Your task to perform on an android device: turn on sleep mode Image 0: 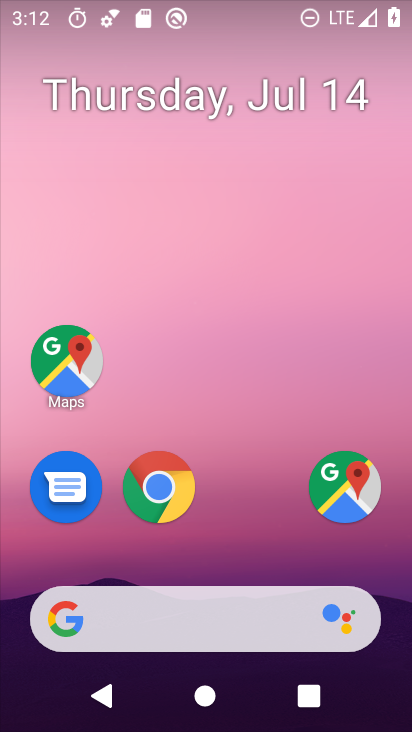
Step 0: drag from (275, 558) to (308, 113)
Your task to perform on an android device: turn on sleep mode Image 1: 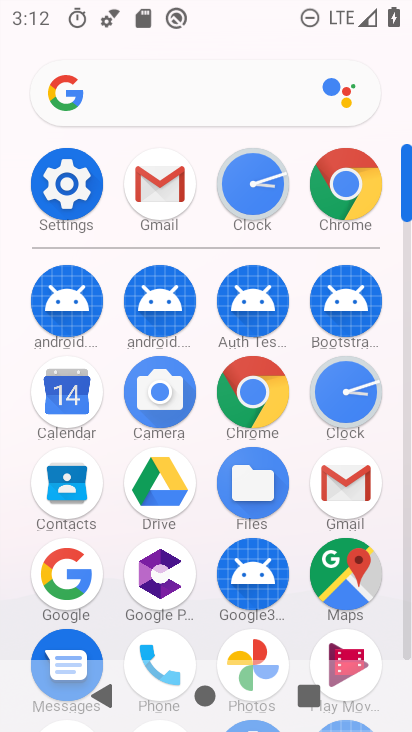
Step 1: click (72, 194)
Your task to perform on an android device: turn on sleep mode Image 2: 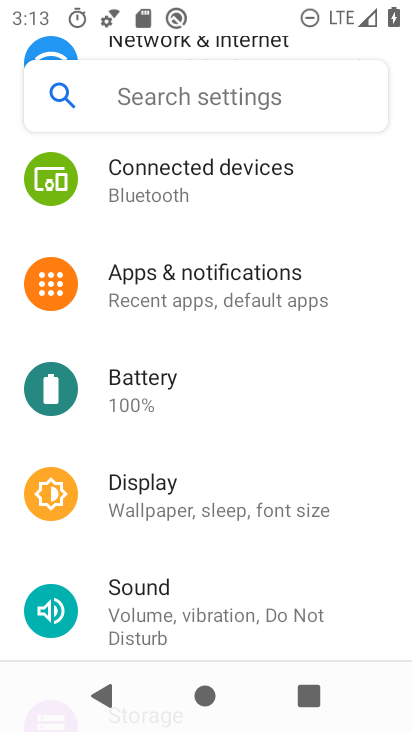
Step 2: drag from (354, 309) to (359, 399)
Your task to perform on an android device: turn on sleep mode Image 3: 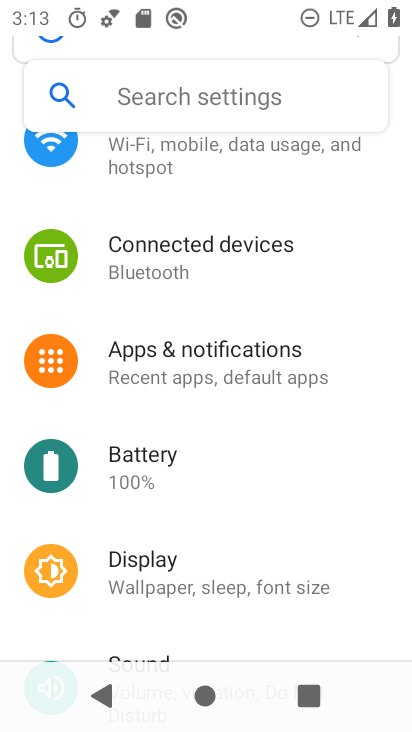
Step 3: drag from (349, 234) to (346, 333)
Your task to perform on an android device: turn on sleep mode Image 4: 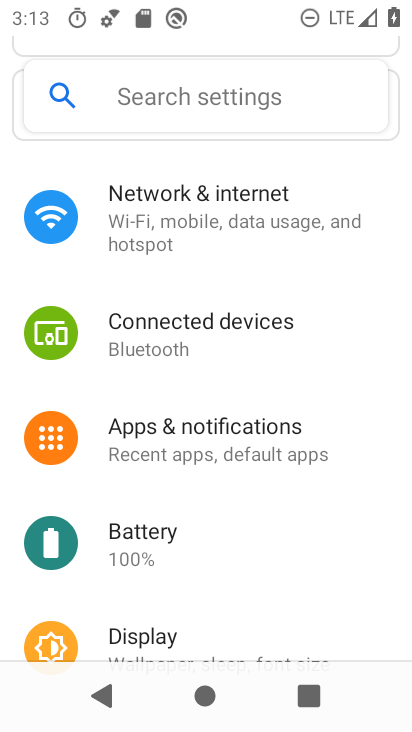
Step 4: drag from (341, 298) to (339, 393)
Your task to perform on an android device: turn on sleep mode Image 5: 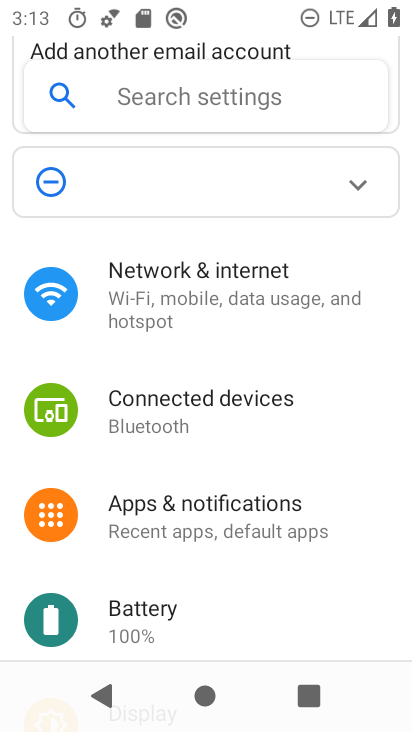
Step 5: drag from (357, 466) to (359, 379)
Your task to perform on an android device: turn on sleep mode Image 6: 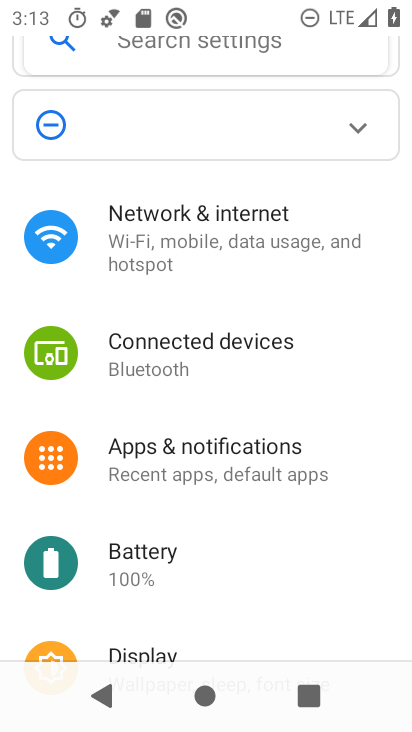
Step 6: drag from (340, 531) to (341, 420)
Your task to perform on an android device: turn on sleep mode Image 7: 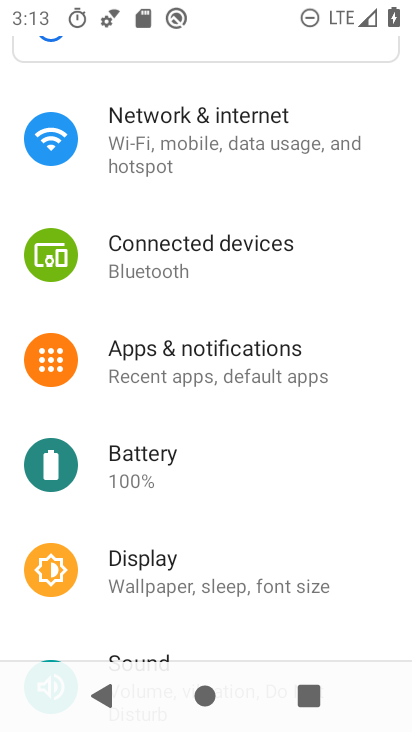
Step 7: drag from (338, 525) to (344, 413)
Your task to perform on an android device: turn on sleep mode Image 8: 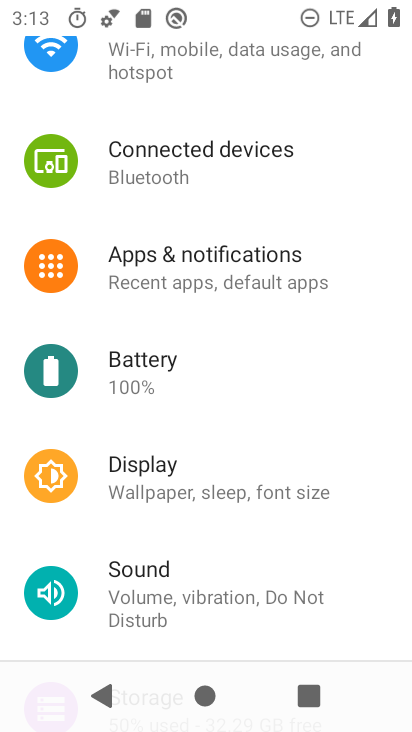
Step 8: click (245, 498)
Your task to perform on an android device: turn on sleep mode Image 9: 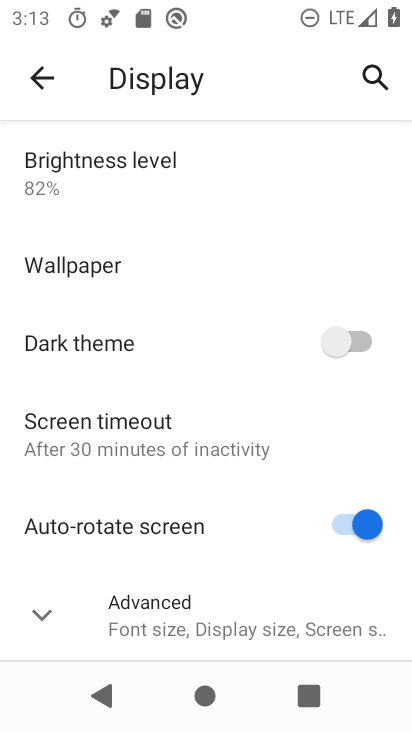
Step 9: click (201, 602)
Your task to perform on an android device: turn on sleep mode Image 10: 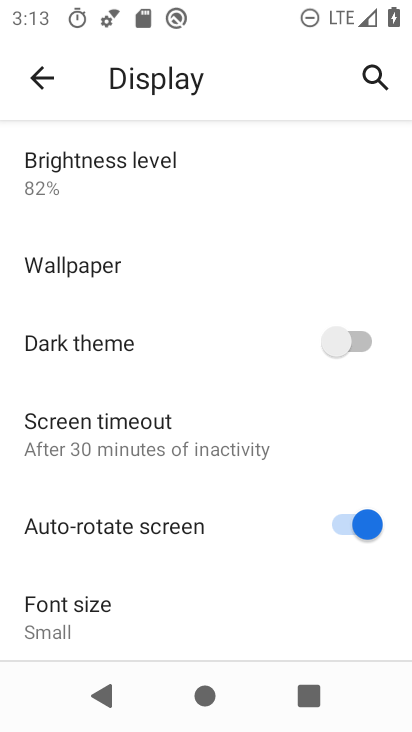
Step 10: task complete